Your task to perform on an android device: change timer sound Image 0: 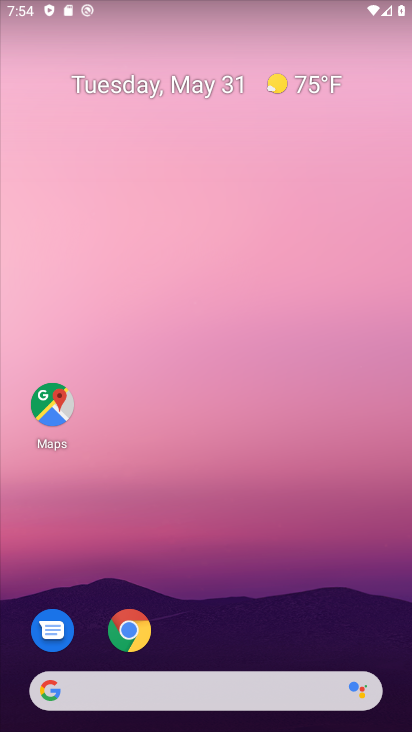
Step 0: drag from (165, 601) to (156, 334)
Your task to perform on an android device: change timer sound Image 1: 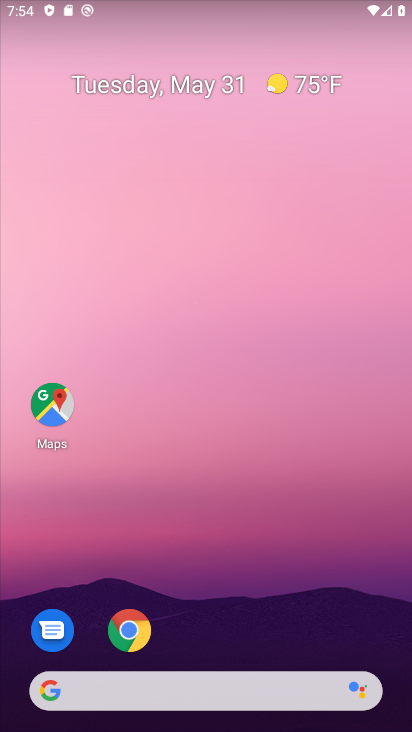
Step 1: drag from (222, 675) to (224, 252)
Your task to perform on an android device: change timer sound Image 2: 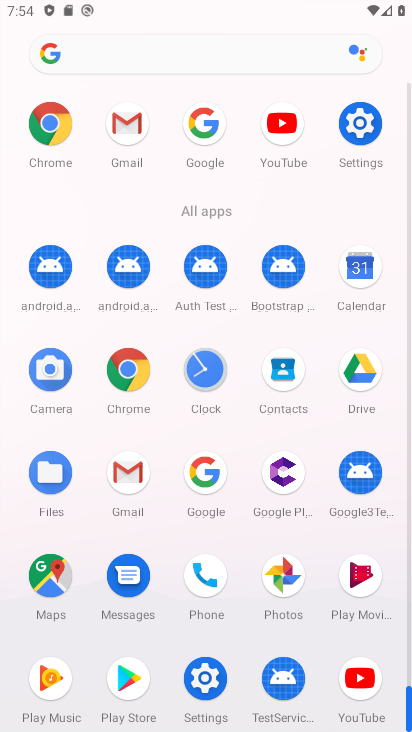
Step 2: click (198, 398)
Your task to perform on an android device: change timer sound Image 3: 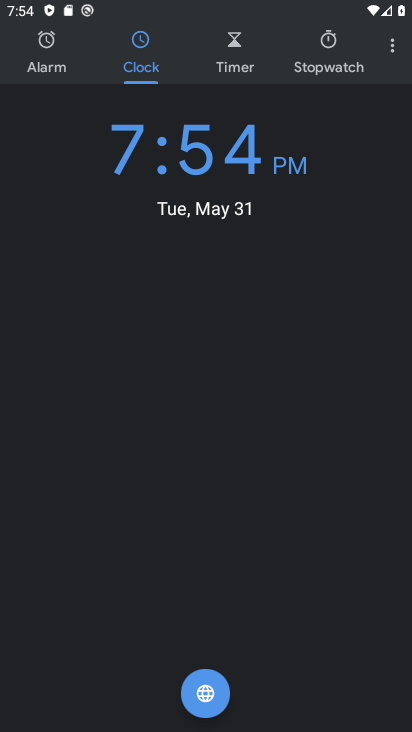
Step 3: click (250, 63)
Your task to perform on an android device: change timer sound Image 4: 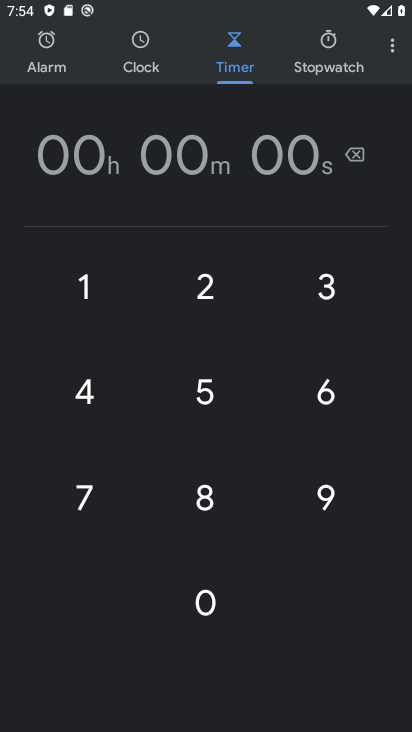
Step 4: click (205, 297)
Your task to perform on an android device: change timer sound Image 5: 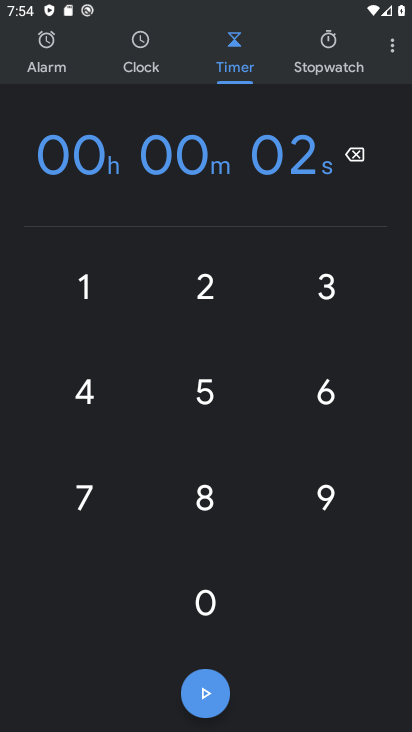
Step 5: click (215, 697)
Your task to perform on an android device: change timer sound Image 6: 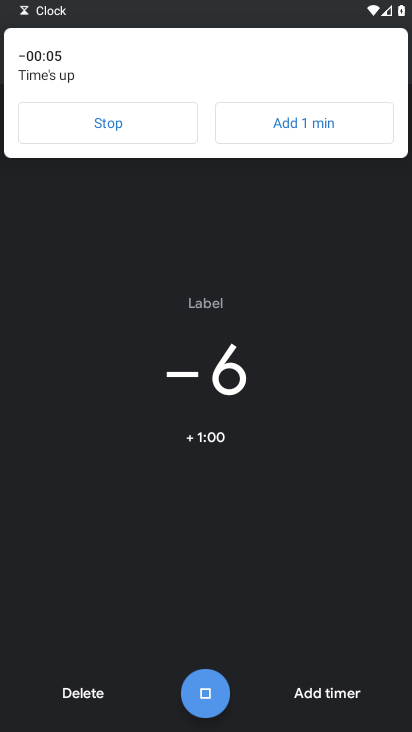
Step 6: task complete